Your task to perform on an android device: change the clock style Image 0: 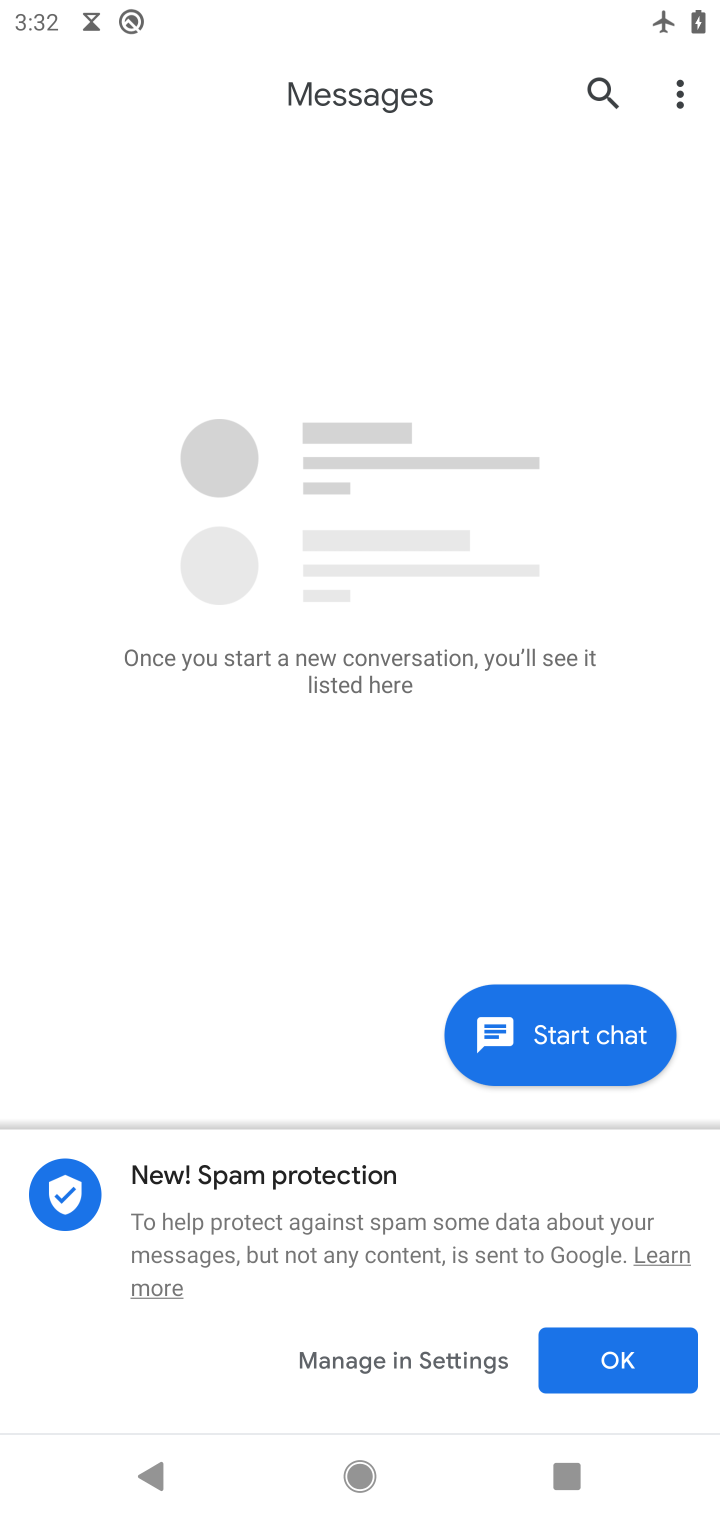
Step 0: press home button
Your task to perform on an android device: change the clock style Image 1: 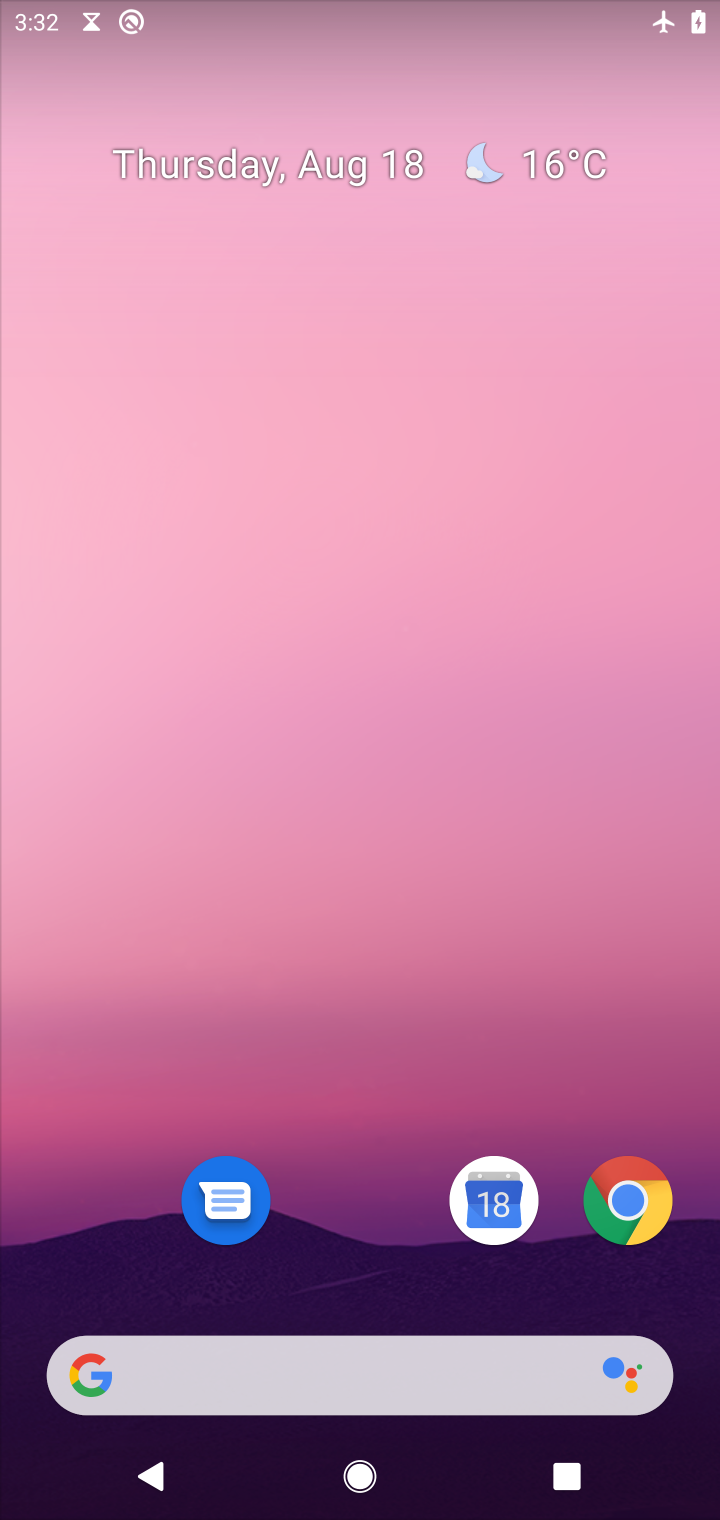
Step 1: drag from (441, 1137) to (525, 41)
Your task to perform on an android device: change the clock style Image 2: 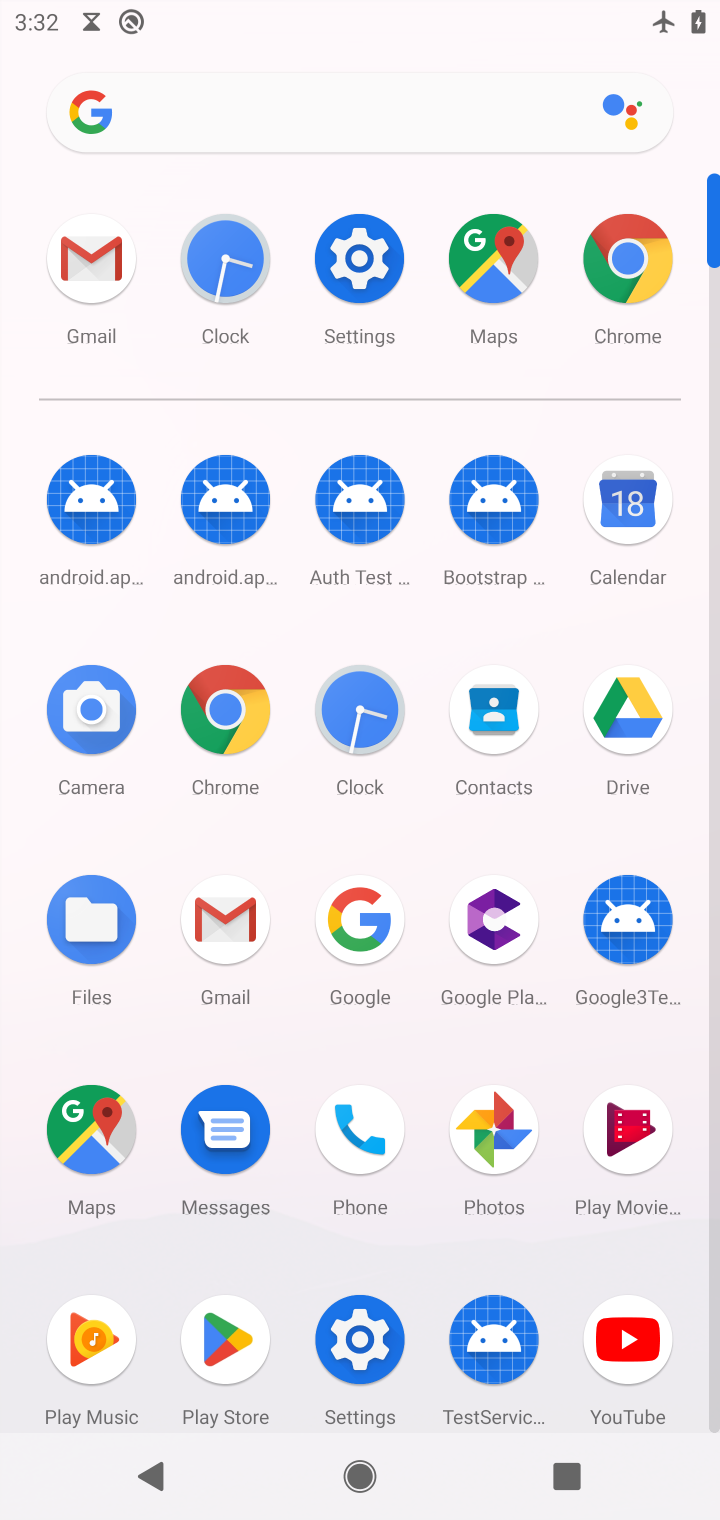
Step 2: click (383, 725)
Your task to perform on an android device: change the clock style Image 3: 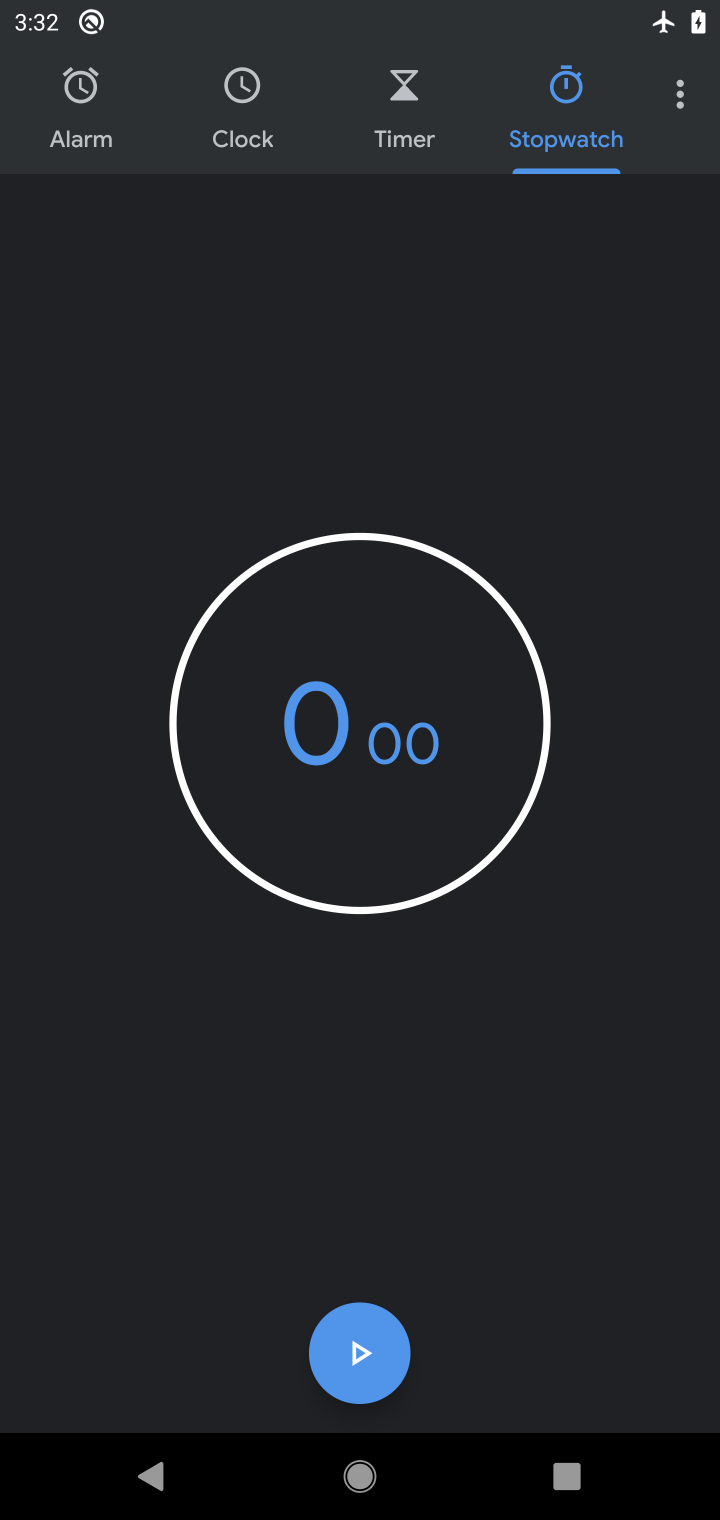
Step 3: click (678, 85)
Your task to perform on an android device: change the clock style Image 4: 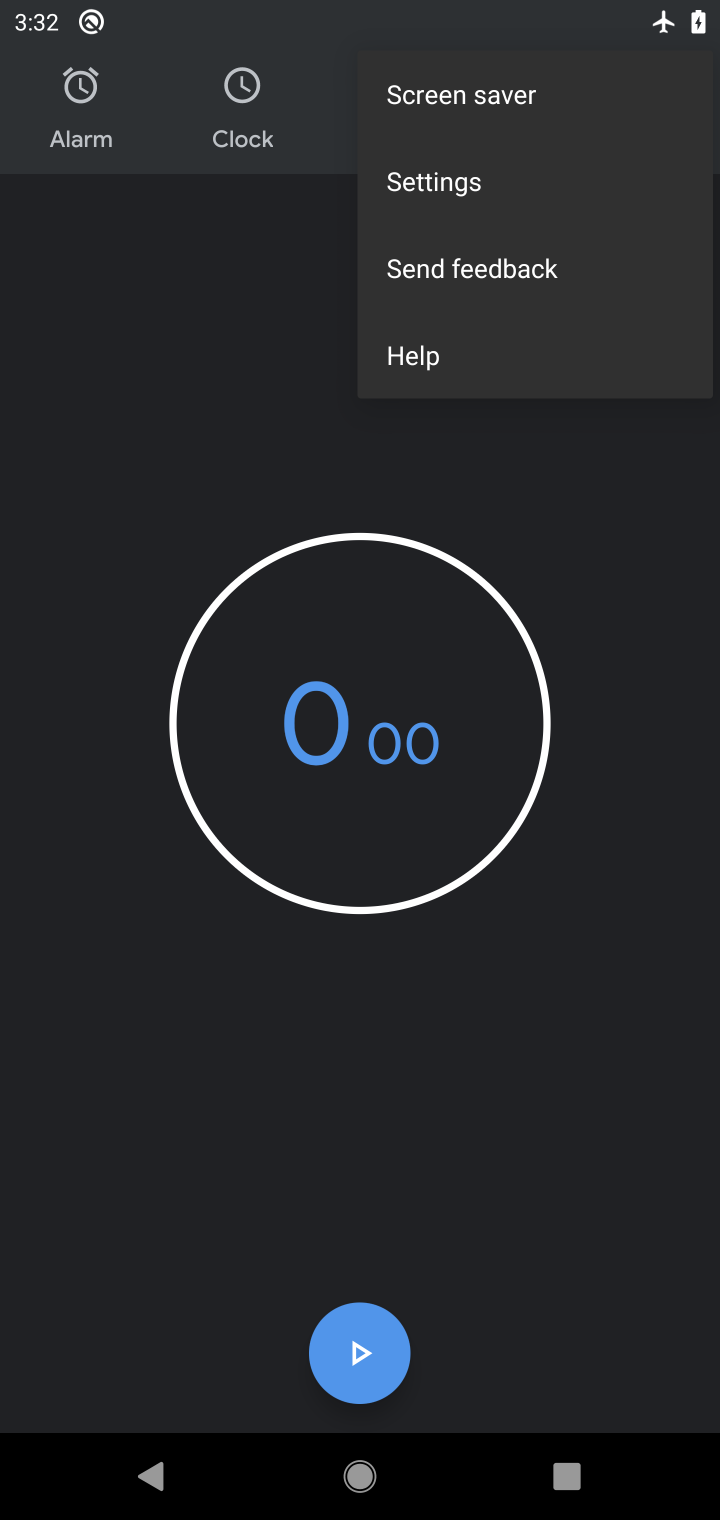
Step 4: click (473, 164)
Your task to perform on an android device: change the clock style Image 5: 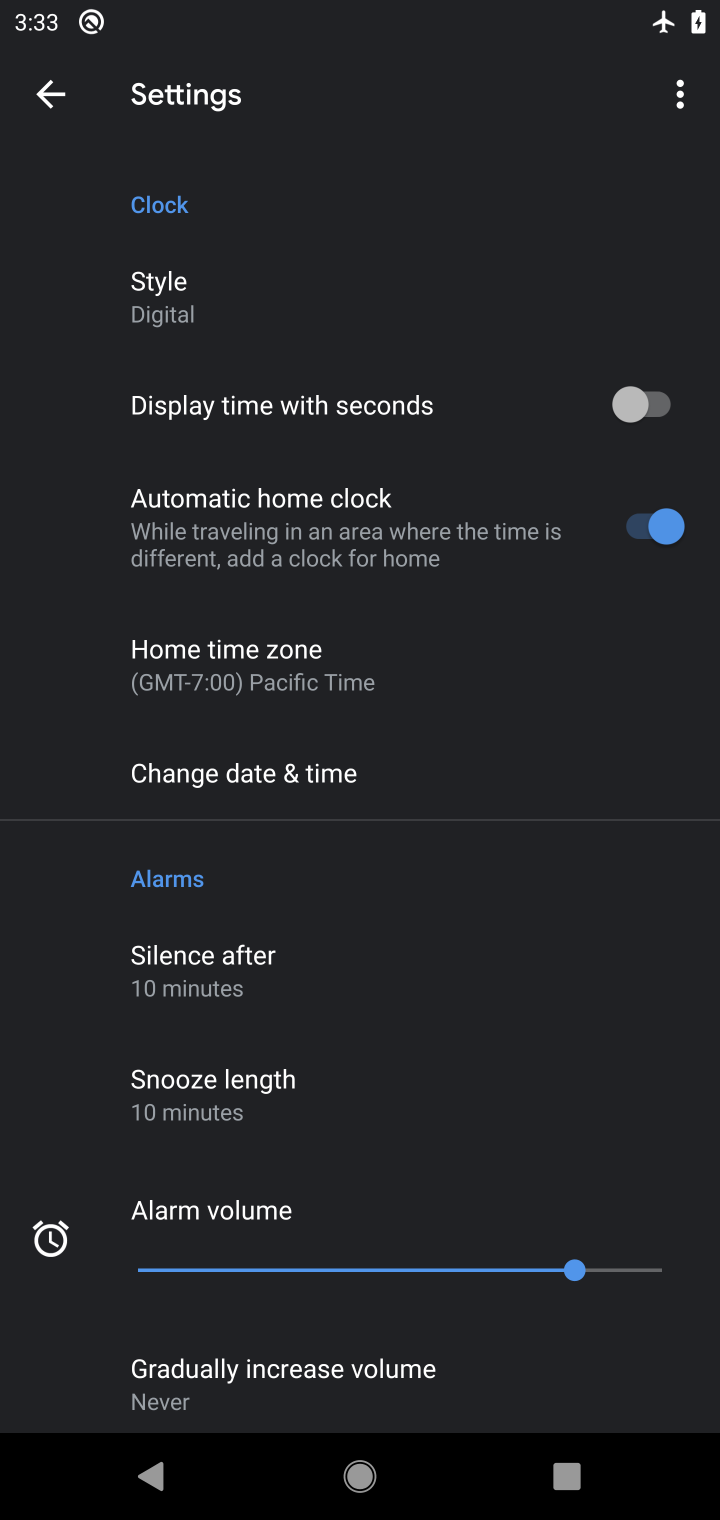
Step 5: click (185, 328)
Your task to perform on an android device: change the clock style Image 6: 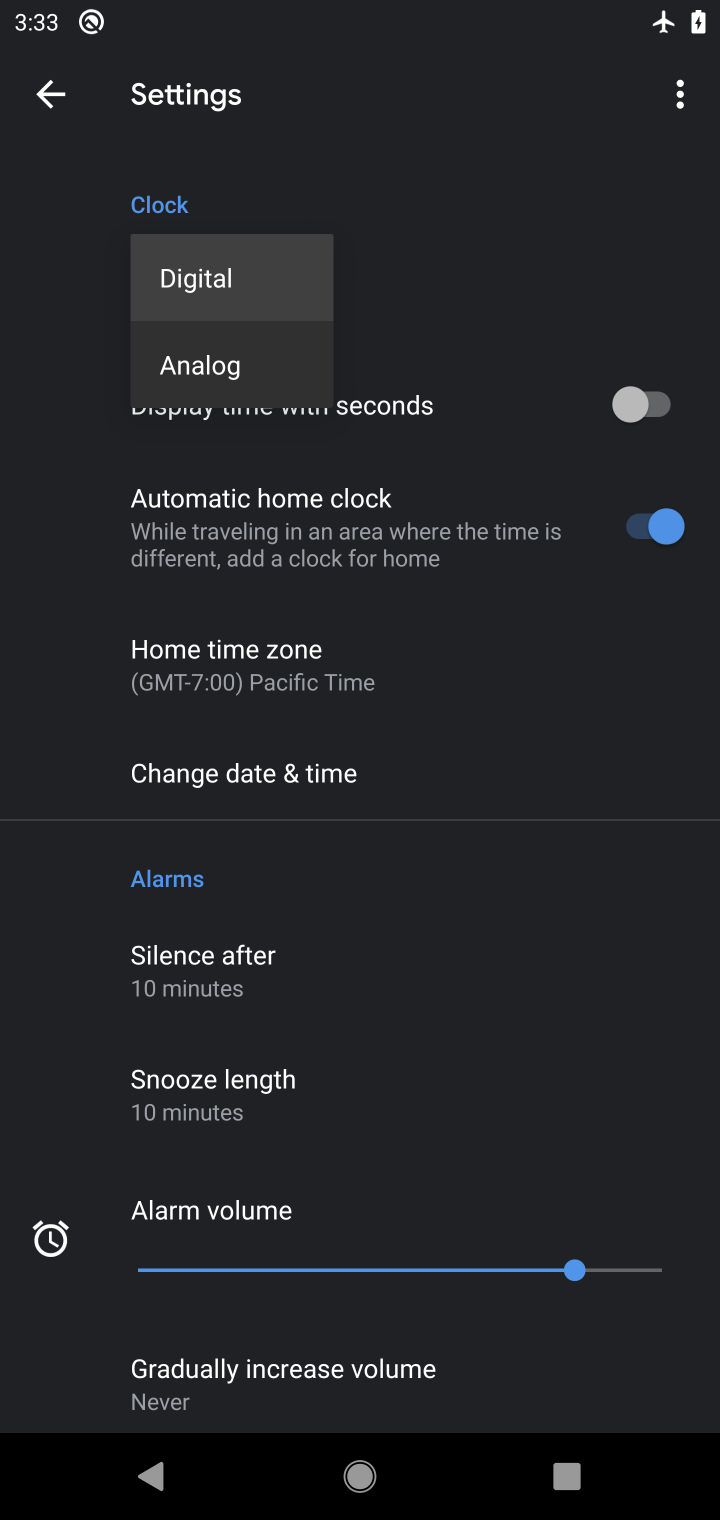
Step 6: click (265, 370)
Your task to perform on an android device: change the clock style Image 7: 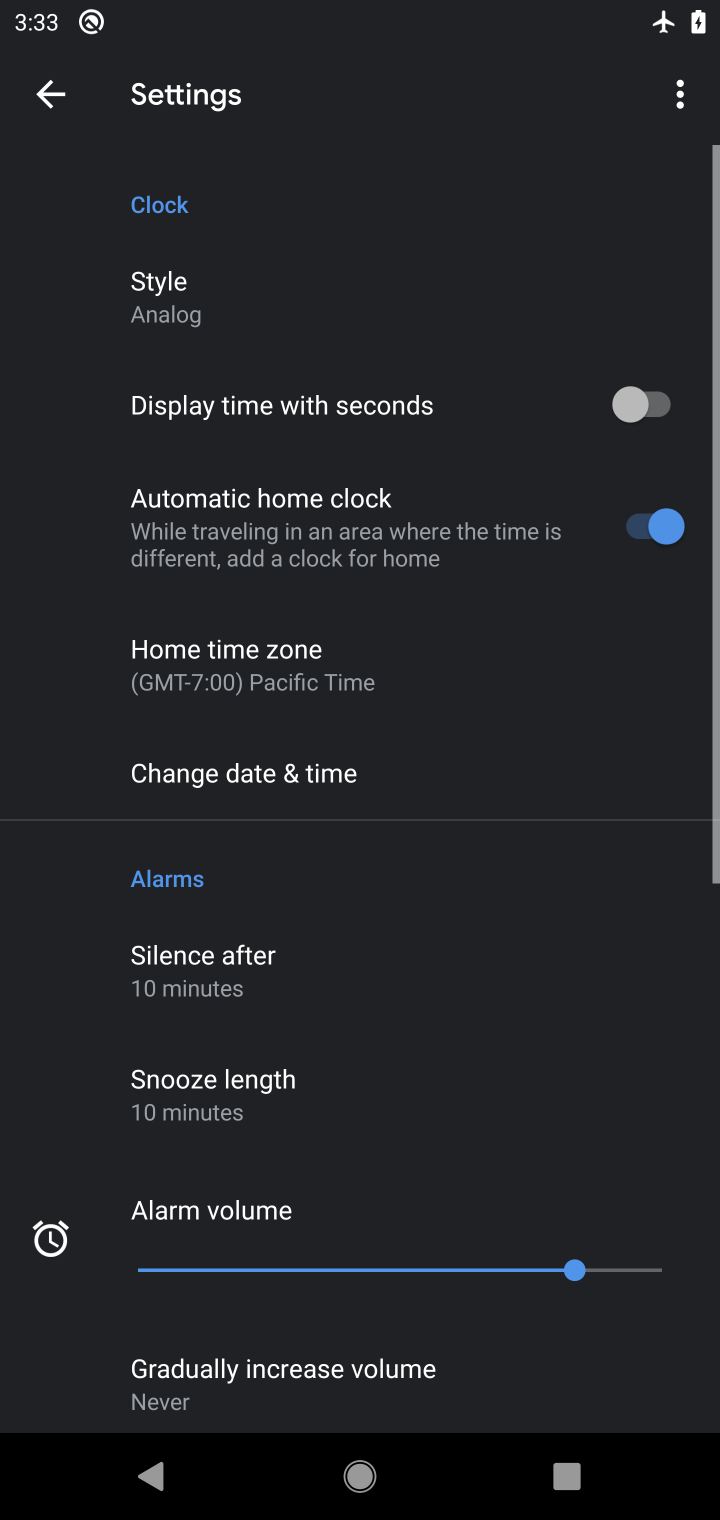
Step 7: task complete